Your task to perform on an android device: toggle wifi Image 0: 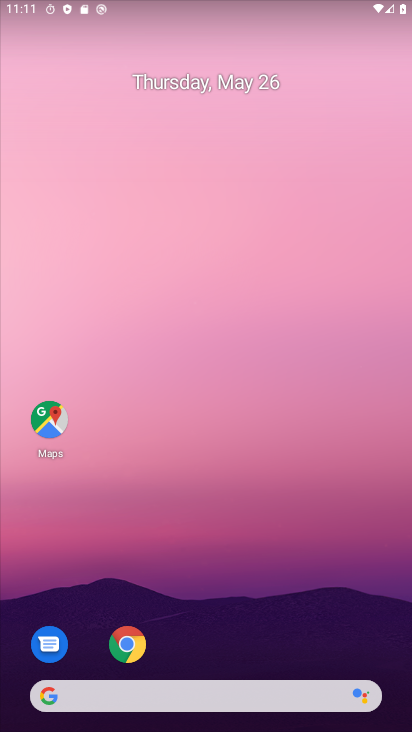
Step 0: drag from (179, 10) to (214, 561)
Your task to perform on an android device: toggle wifi Image 1: 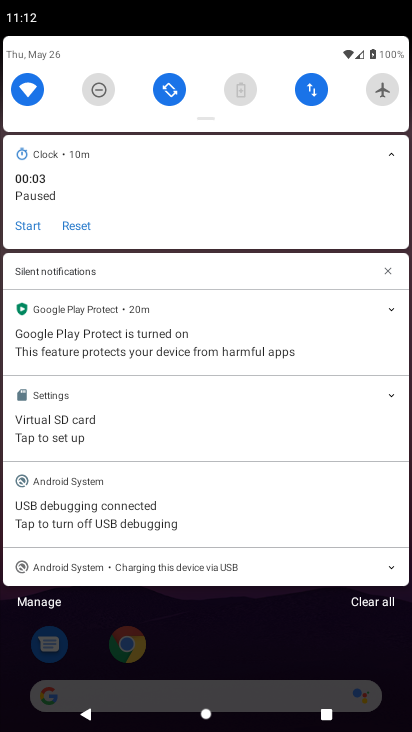
Step 1: click (35, 97)
Your task to perform on an android device: toggle wifi Image 2: 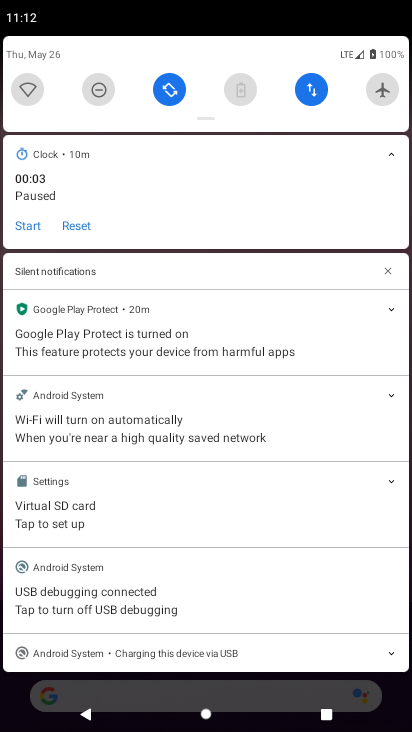
Step 2: task complete